Your task to perform on an android device: Turn off the flashlight Image 0: 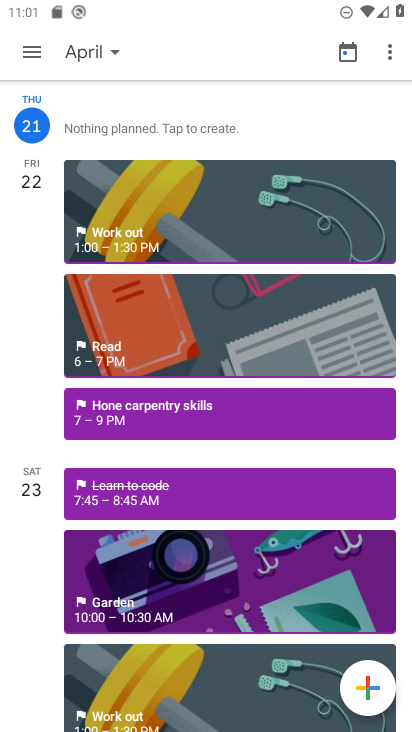
Step 0: press home button
Your task to perform on an android device: Turn off the flashlight Image 1: 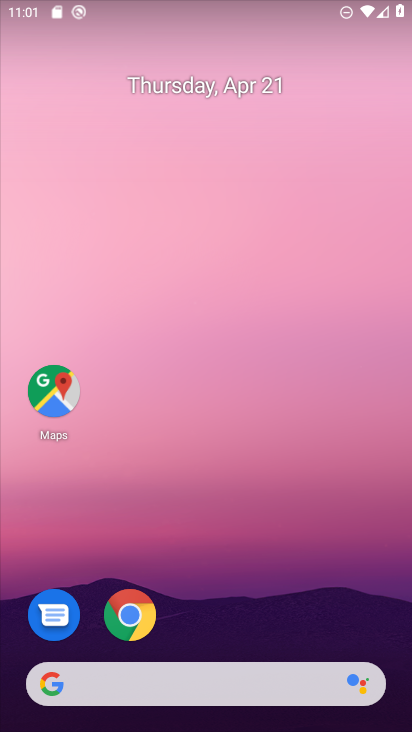
Step 1: drag from (228, 623) to (222, 26)
Your task to perform on an android device: Turn off the flashlight Image 2: 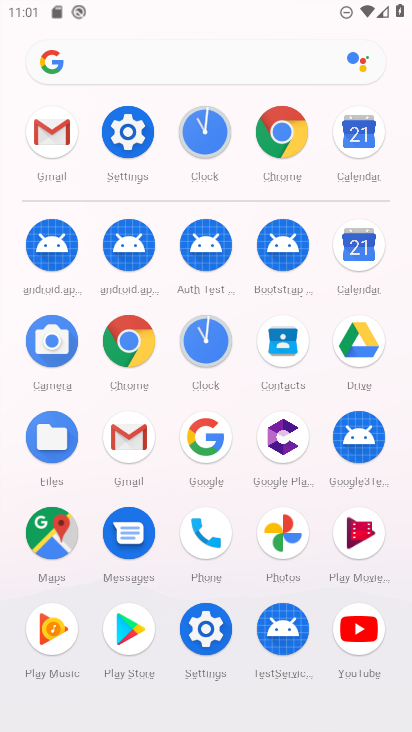
Step 2: click (205, 621)
Your task to perform on an android device: Turn off the flashlight Image 3: 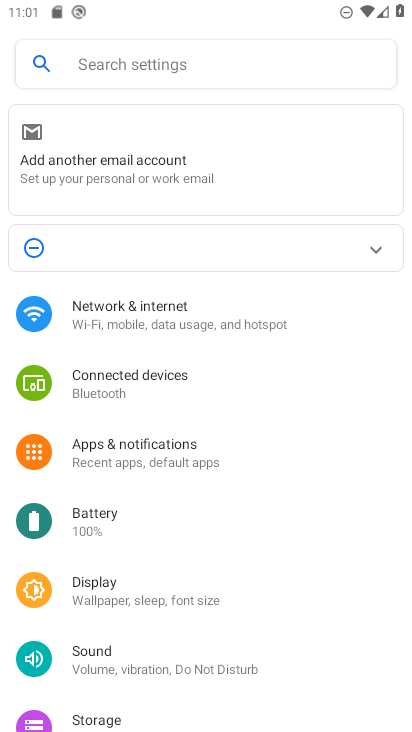
Step 3: click (121, 52)
Your task to perform on an android device: Turn off the flashlight Image 4: 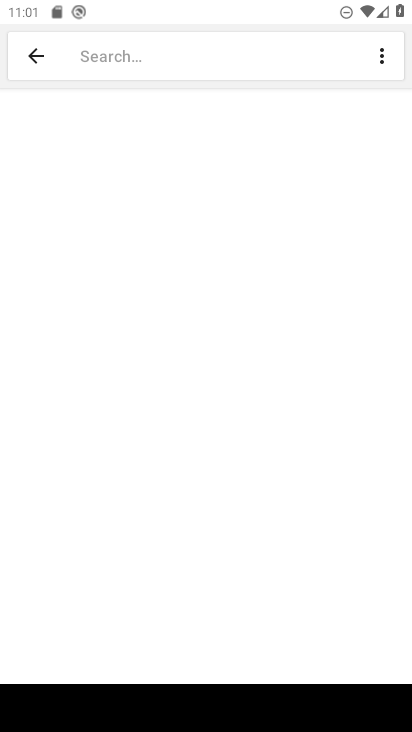
Step 4: type "flashlight"
Your task to perform on an android device: Turn off the flashlight Image 5: 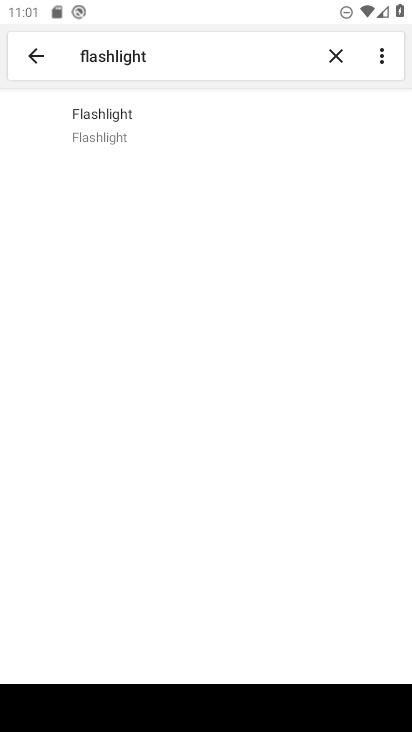
Step 5: click (146, 127)
Your task to perform on an android device: Turn off the flashlight Image 6: 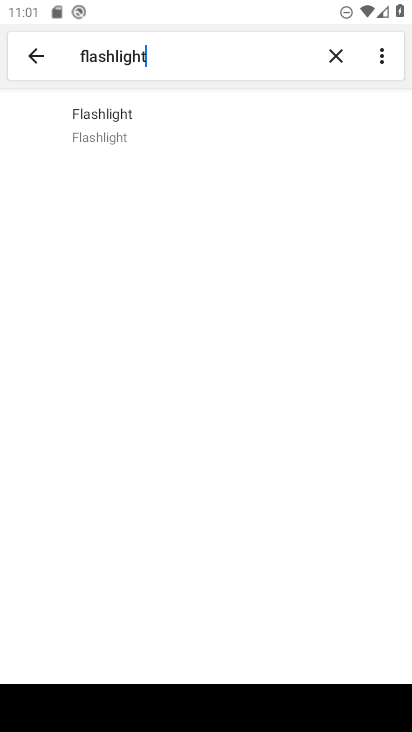
Step 6: task complete